Your task to perform on an android device: open app "Spotify" (install if not already installed), go to login, and select forgot password Image 0: 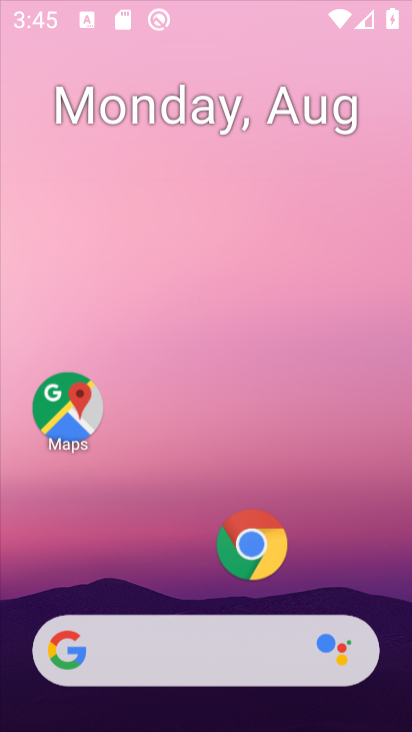
Step 0: drag from (127, 558) to (287, 20)
Your task to perform on an android device: open app "Spotify" (install if not already installed), go to login, and select forgot password Image 1: 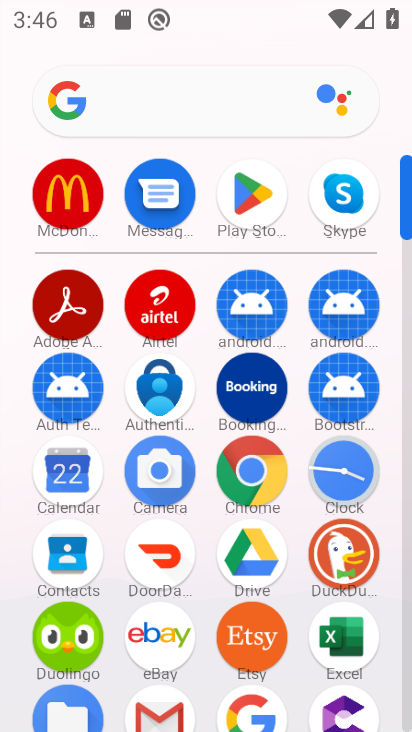
Step 1: drag from (230, 618) to (303, 57)
Your task to perform on an android device: open app "Spotify" (install if not already installed), go to login, and select forgot password Image 2: 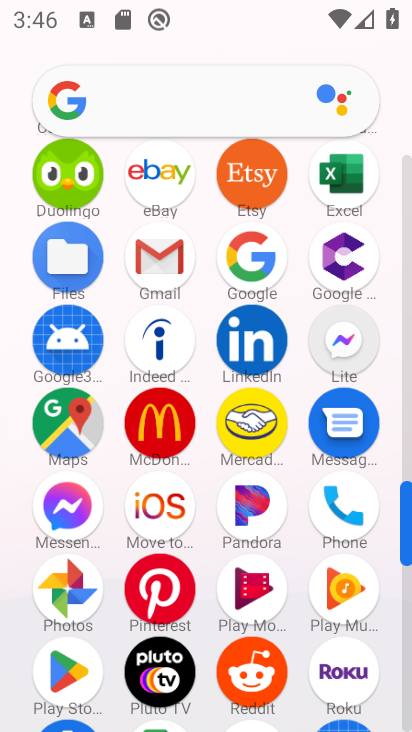
Step 2: drag from (240, 599) to (264, 77)
Your task to perform on an android device: open app "Spotify" (install if not already installed), go to login, and select forgot password Image 3: 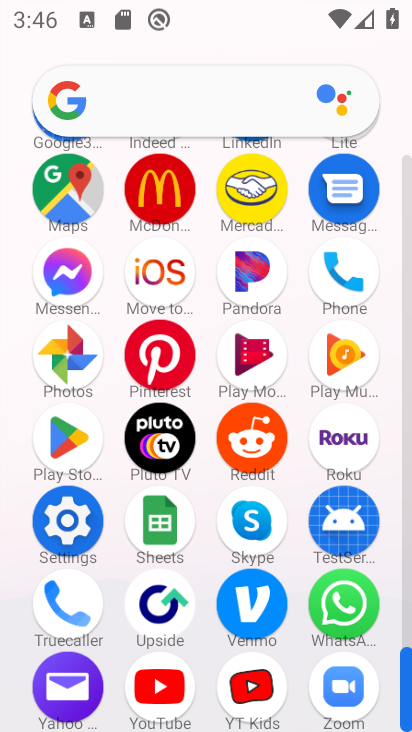
Step 3: drag from (237, 614) to (280, 94)
Your task to perform on an android device: open app "Spotify" (install if not already installed), go to login, and select forgot password Image 4: 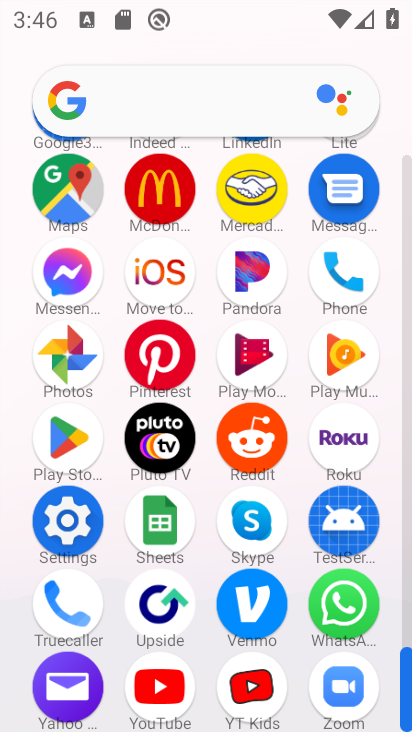
Step 4: click (45, 451)
Your task to perform on an android device: open app "Spotify" (install if not already installed), go to login, and select forgot password Image 5: 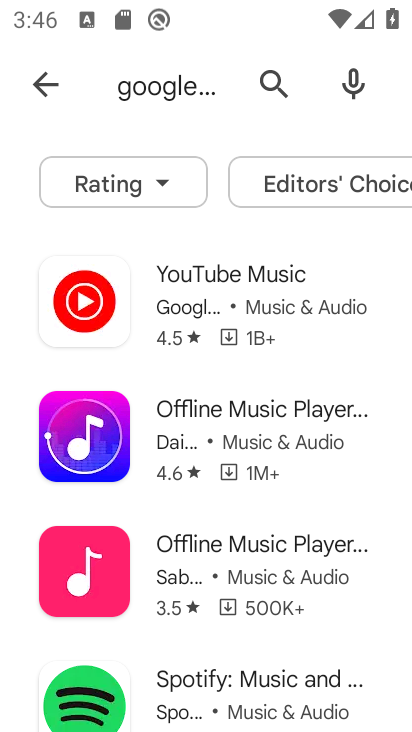
Step 5: click (260, 83)
Your task to perform on an android device: open app "Spotify" (install if not already installed), go to login, and select forgot password Image 6: 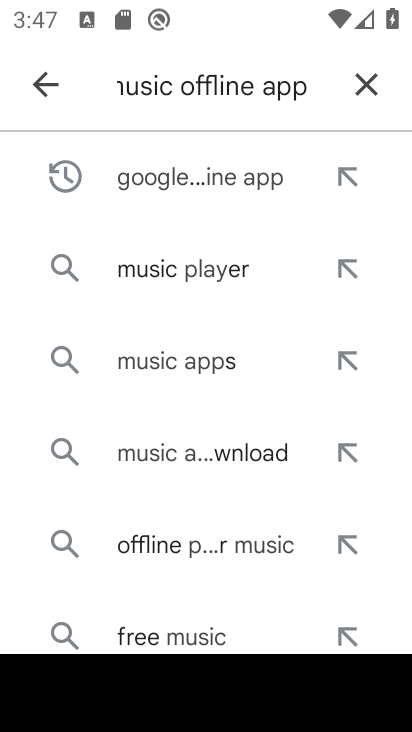
Step 6: click (376, 84)
Your task to perform on an android device: open app "Spotify" (install if not already installed), go to login, and select forgot password Image 7: 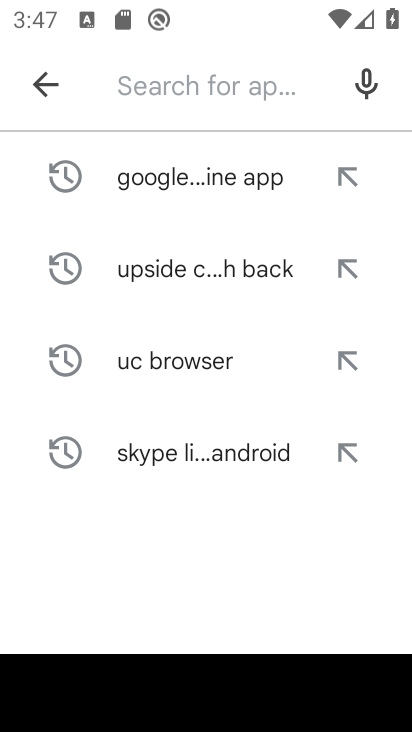
Step 7: click (194, 92)
Your task to perform on an android device: open app "Spotify" (install if not already installed), go to login, and select forgot password Image 8: 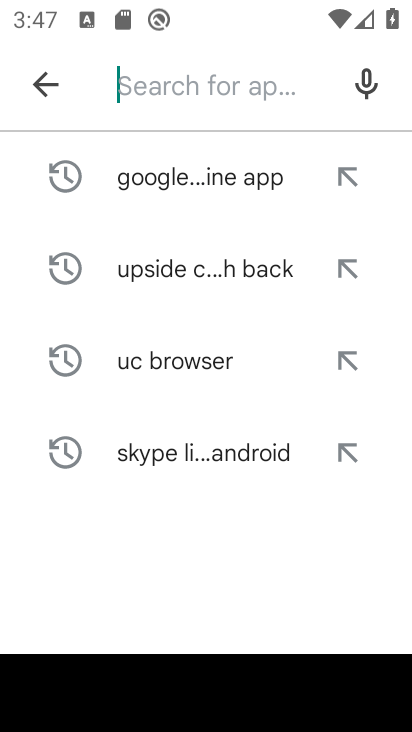
Step 8: type "spotify"
Your task to perform on an android device: open app "Spotify" (install if not already installed), go to login, and select forgot password Image 9: 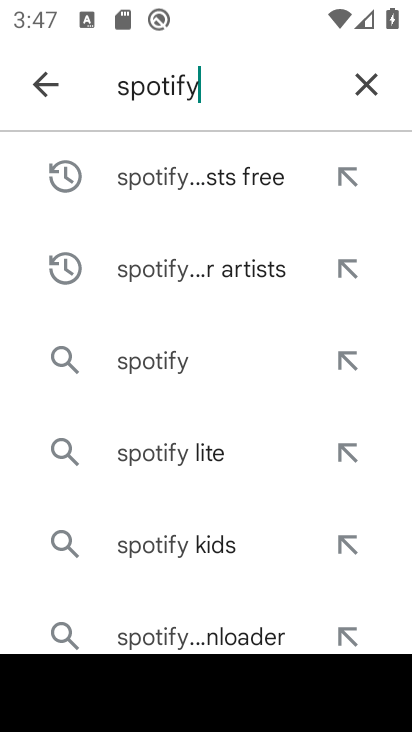
Step 9: click (177, 169)
Your task to perform on an android device: open app "Spotify" (install if not already installed), go to login, and select forgot password Image 10: 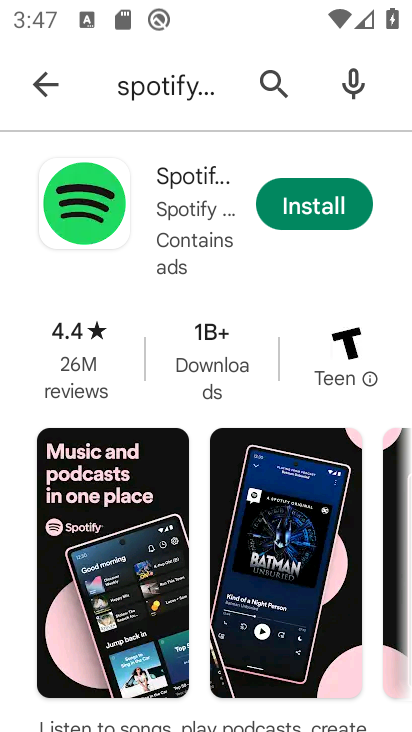
Step 10: click (293, 194)
Your task to perform on an android device: open app "Spotify" (install if not already installed), go to login, and select forgot password Image 11: 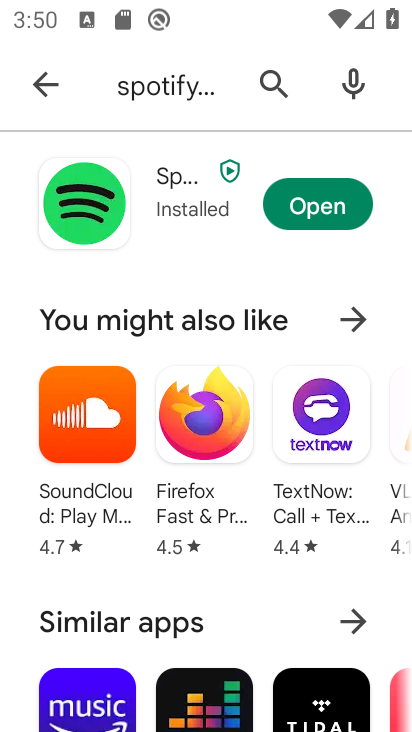
Step 11: click (306, 206)
Your task to perform on an android device: open app "Spotify" (install if not already installed), go to login, and select forgot password Image 12: 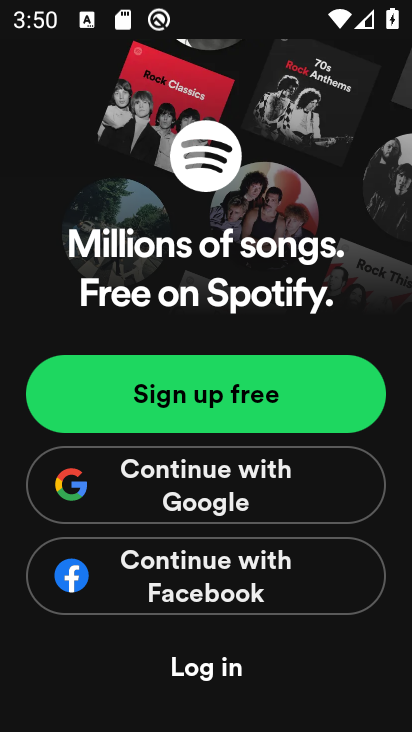
Step 12: click (187, 662)
Your task to perform on an android device: open app "Spotify" (install if not already installed), go to login, and select forgot password Image 13: 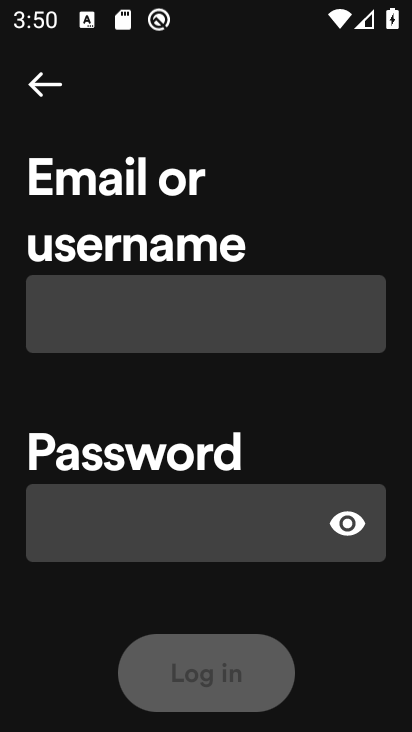
Step 13: task complete